Your task to perform on an android device: Do I have any events today? Image 0: 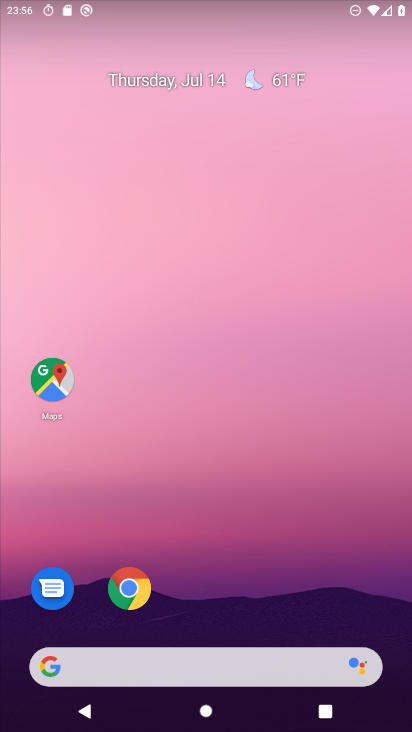
Step 0: drag from (215, 643) to (214, 62)
Your task to perform on an android device: Do I have any events today? Image 1: 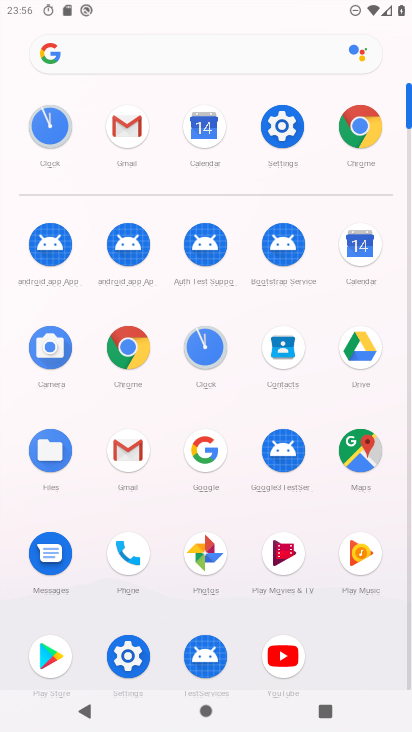
Step 1: click (367, 257)
Your task to perform on an android device: Do I have any events today? Image 2: 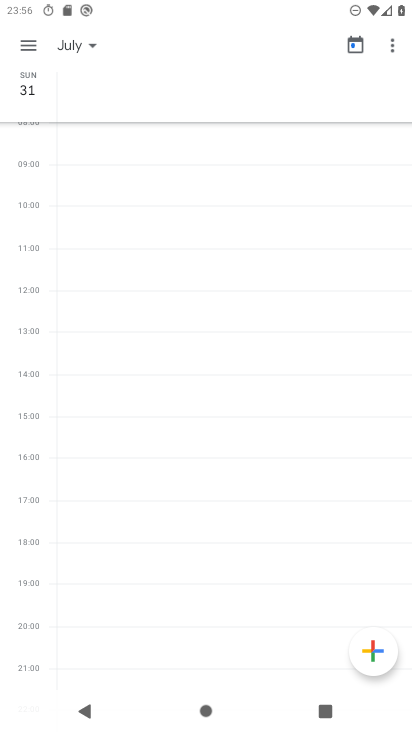
Step 2: click (64, 47)
Your task to perform on an android device: Do I have any events today? Image 3: 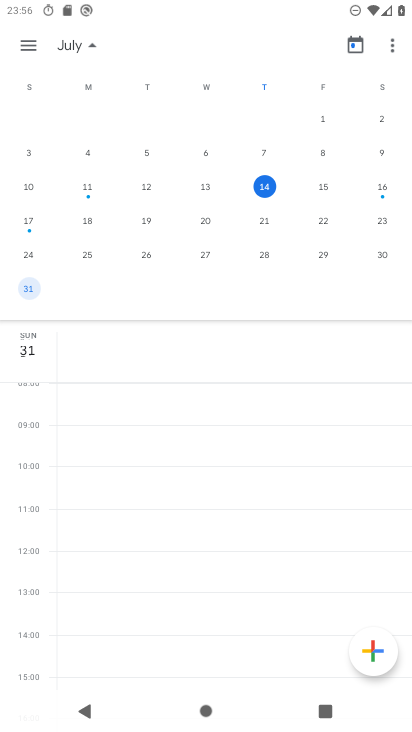
Step 3: click (268, 181)
Your task to perform on an android device: Do I have any events today? Image 4: 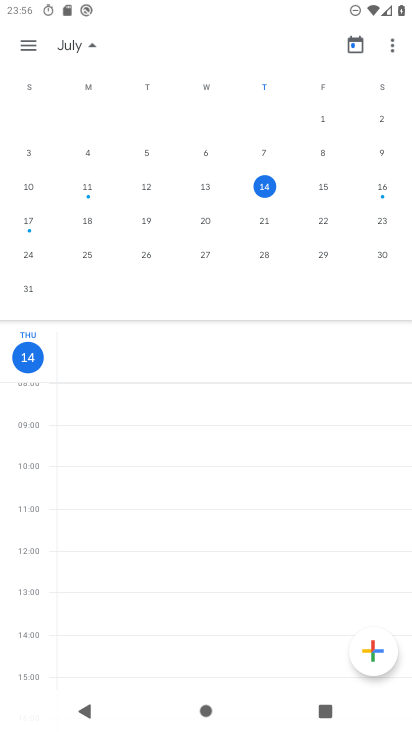
Step 4: click (27, 46)
Your task to perform on an android device: Do I have any events today? Image 5: 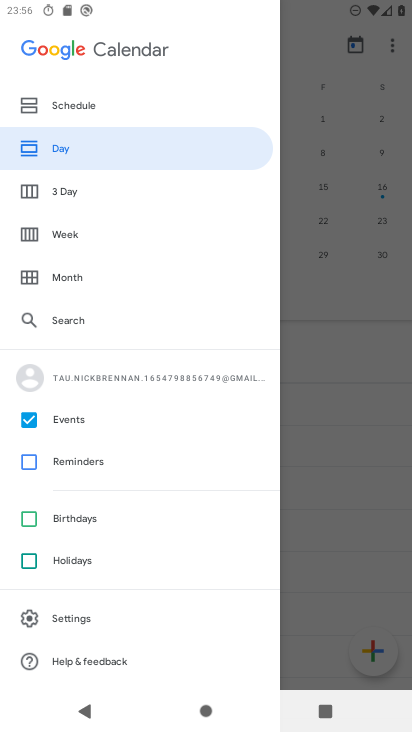
Step 5: click (70, 156)
Your task to perform on an android device: Do I have any events today? Image 6: 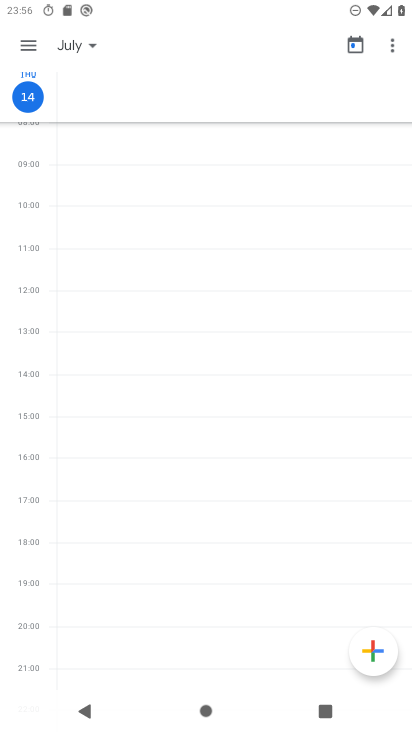
Step 6: task complete